Your task to perform on an android device: see sites visited before in the chrome app Image 0: 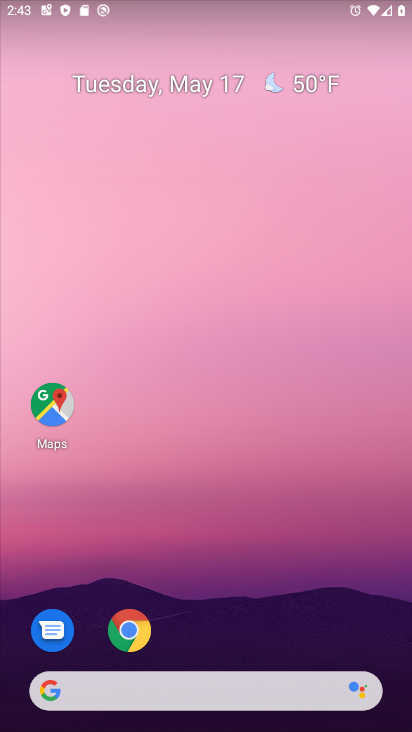
Step 0: click (135, 630)
Your task to perform on an android device: see sites visited before in the chrome app Image 1: 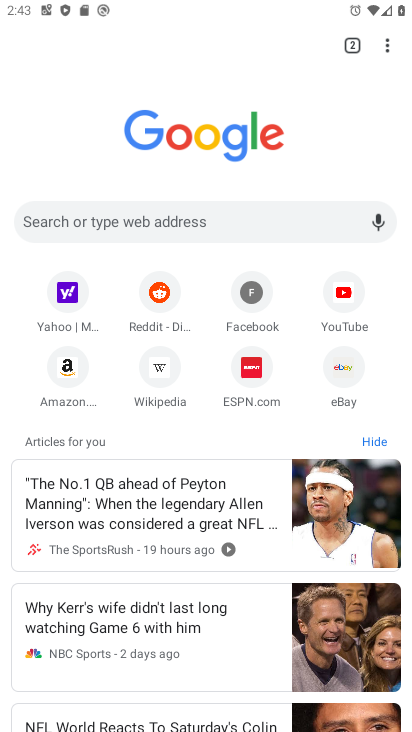
Step 1: task complete